Your task to perform on an android device: manage bookmarks in the chrome app Image 0: 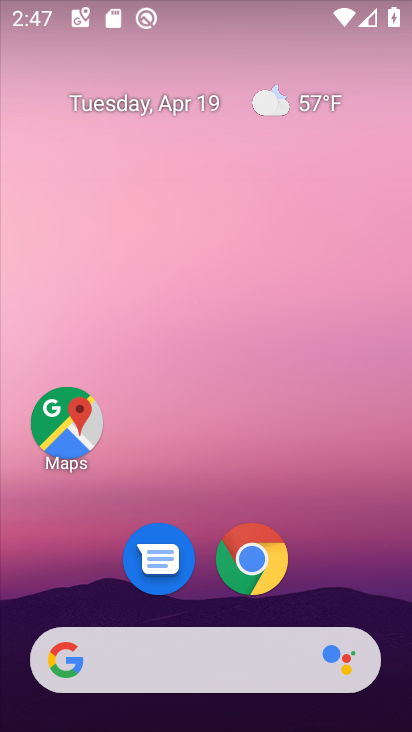
Step 0: click (242, 151)
Your task to perform on an android device: manage bookmarks in the chrome app Image 1: 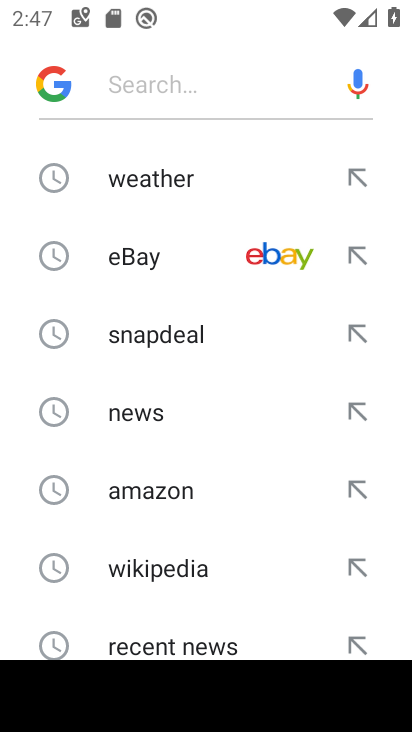
Step 1: press home button
Your task to perform on an android device: manage bookmarks in the chrome app Image 2: 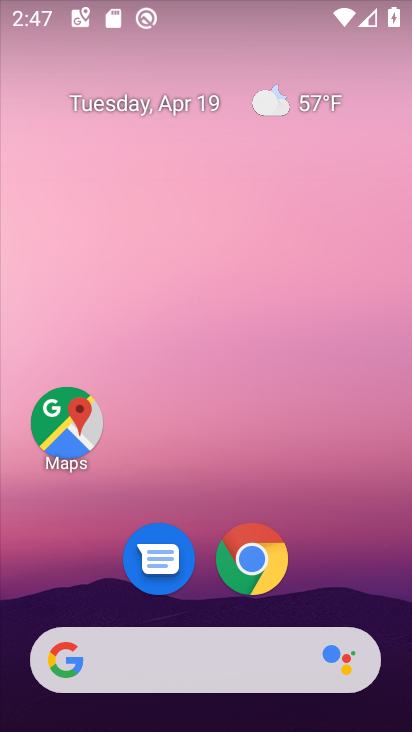
Step 2: click (254, 557)
Your task to perform on an android device: manage bookmarks in the chrome app Image 3: 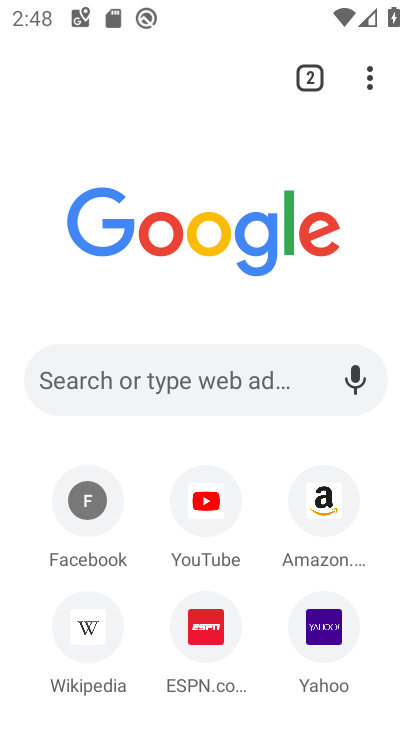
Step 3: click (366, 71)
Your task to perform on an android device: manage bookmarks in the chrome app Image 4: 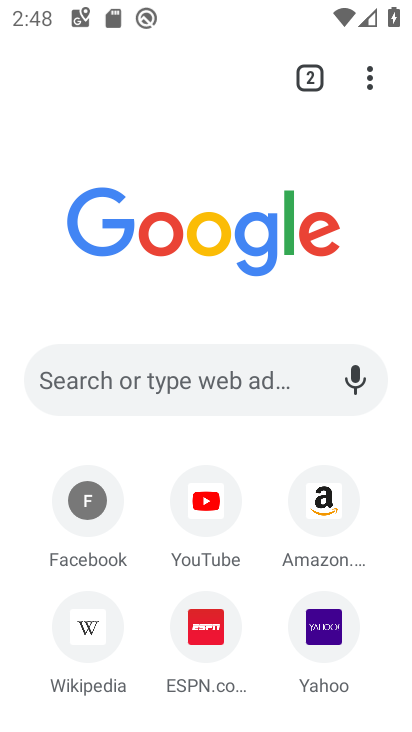
Step 4: click (372, 67)
Your task to perform on an android device: manage bookmarks in the chrome app Image 5: 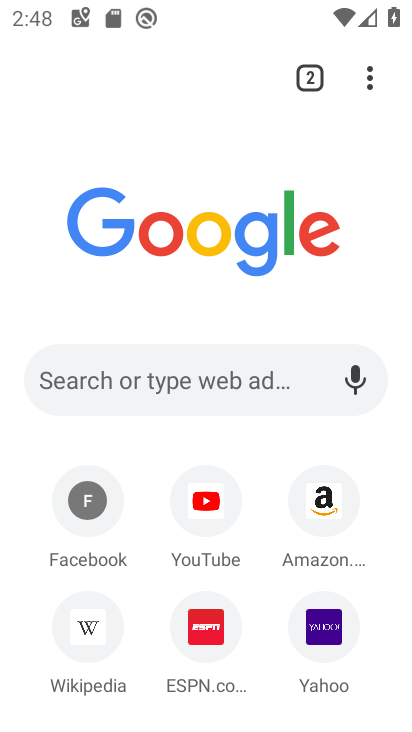
Step 5: click (362, 72)
Your task to perform on an android device: manage bookmarks in the chrome app Image 6: 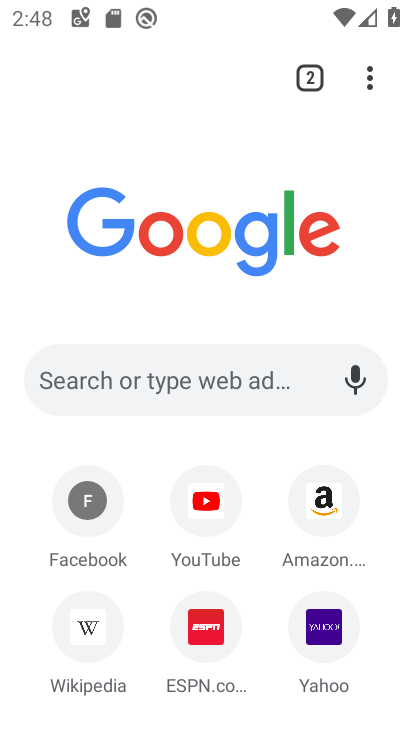
Step 6: click (367, 76)
Your task to perform on an android device: manage bookmarks in the chrome app Image 7: 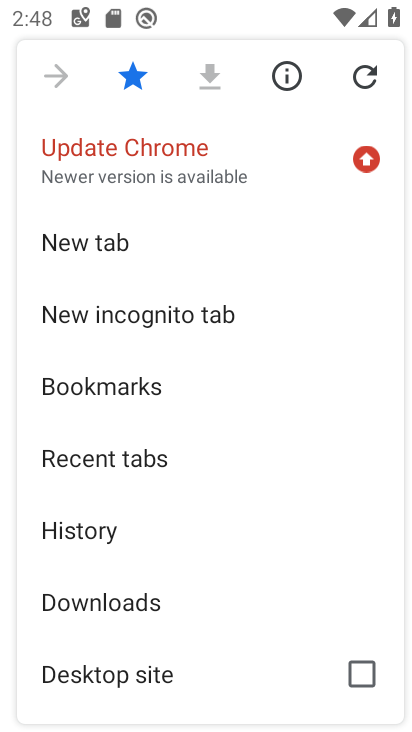
Step 7: click (171, 384)
Your task to perform on an android device: manage bookmarks in the chrome app Image 8: 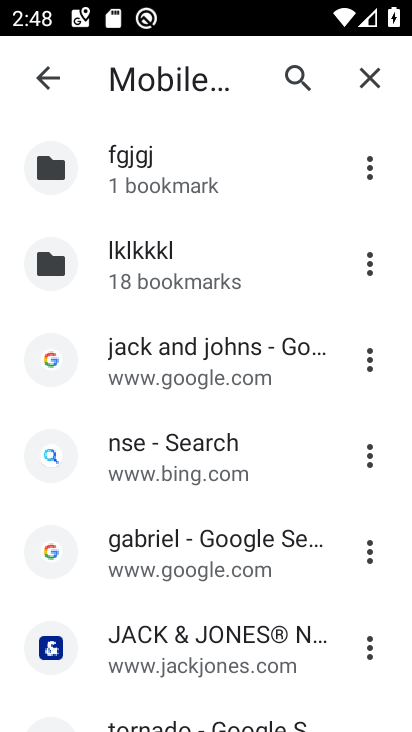
Step 8: drag from (218, 604) to (225, 294)
Your task to perform on an android device: manage bookmarks in the chrome app Image 9: 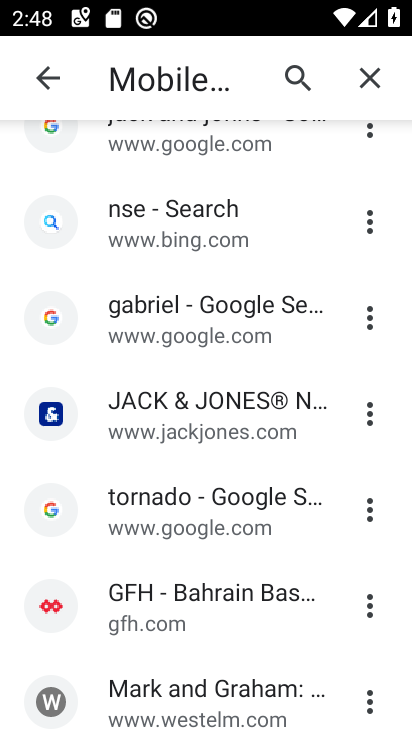
Step 9: click (366, 510)
Your task to perform on an android device: manage bookmarks in the chrome app Image 10: 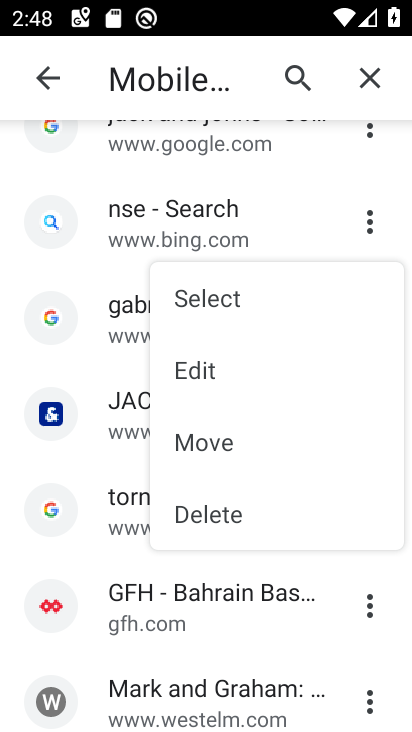
Step 10: click (249, 511)
Your task to perform on an android device: manage bookmarks in the chrome app Image 11: 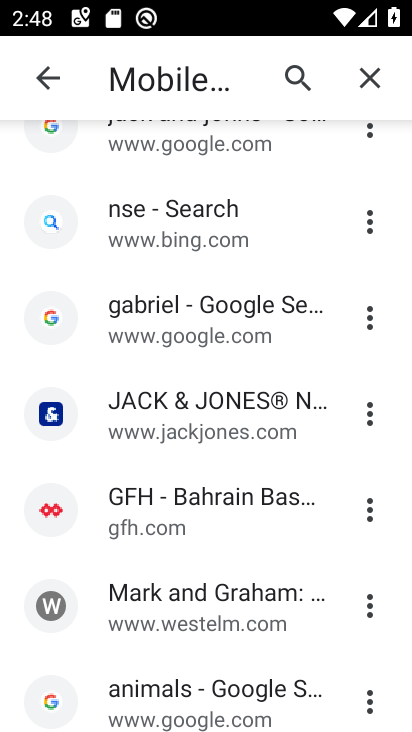
Step 11: task complete